Your task to perform on an android device: delete location history Image 0: 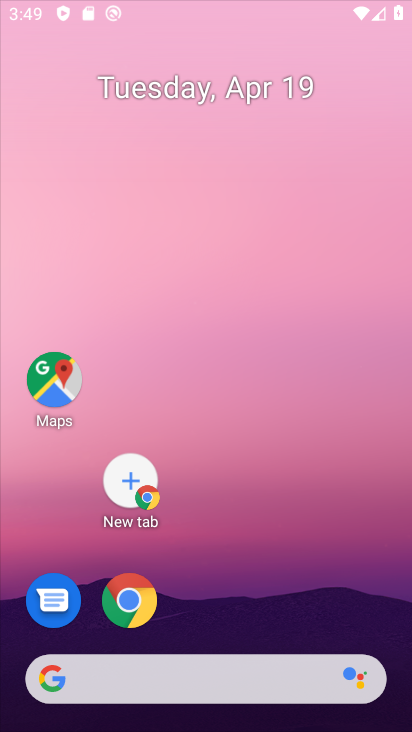
Step 0: click (248, 594)
Your task to perform on an android device: delete location history Image 1: 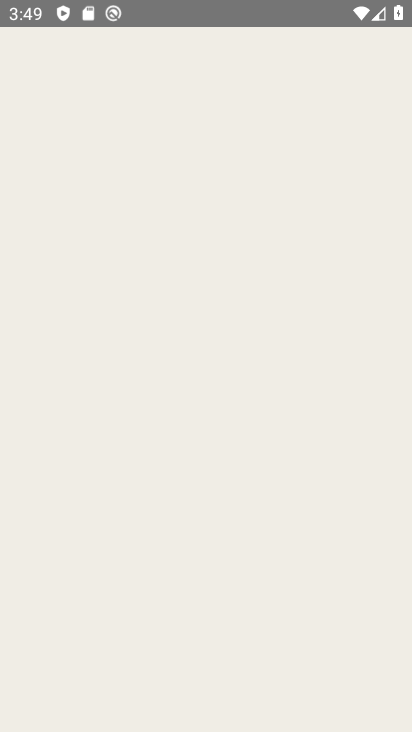
Step 1: drag from (293, 15) to (297, 436)
Your task to perform on an android device: delete location history Image 2: 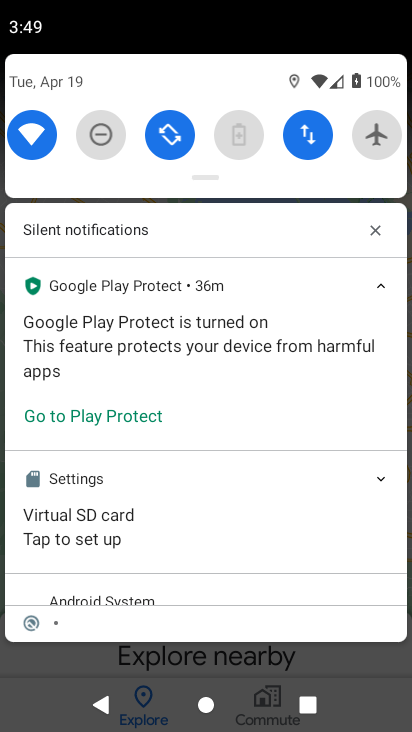
Step 2: press home button
Your task to perform on an android device: delete location history Image 3: 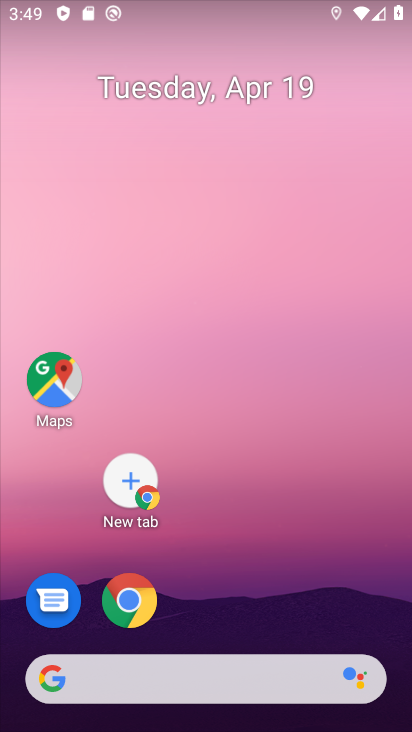
Step 3: click (49, 384)
Your task to perform on an android device: delete location history Image 4: 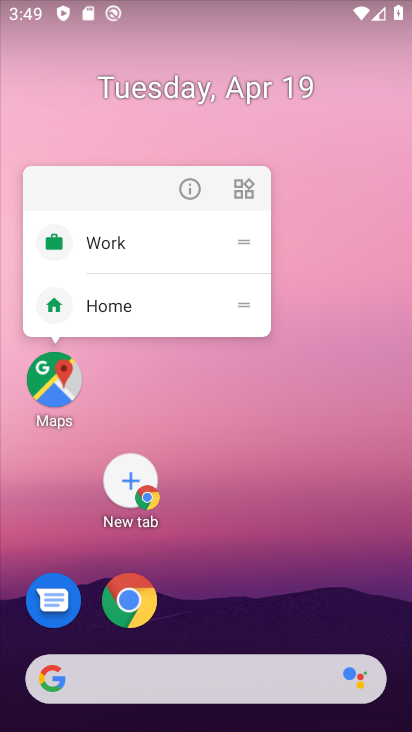
Step 4: click (47, 383)
Your task to perform on an android device: delete location history Image 5: 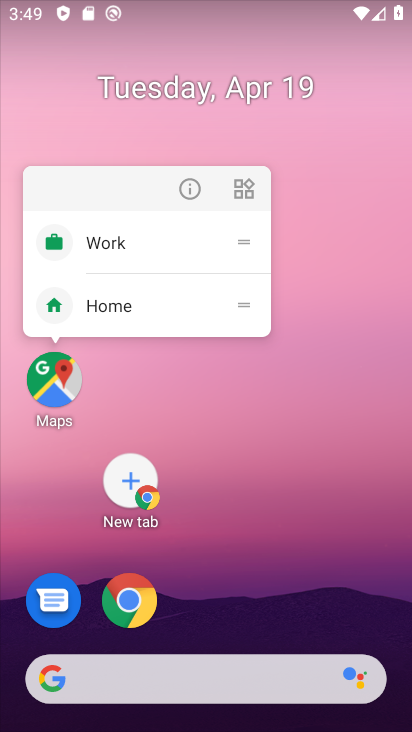
Step 5: click (47, 383)
Your task to perform on an android device: delete location history Image 6: 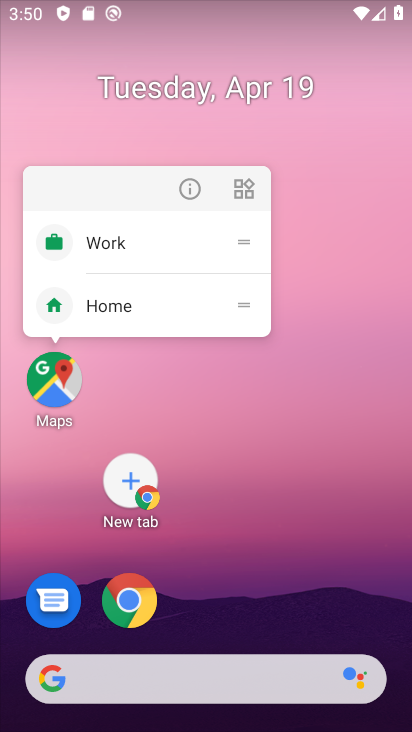
Step 6: click (110, 311)
Your task to perform on an android device: delete location history Image 7: 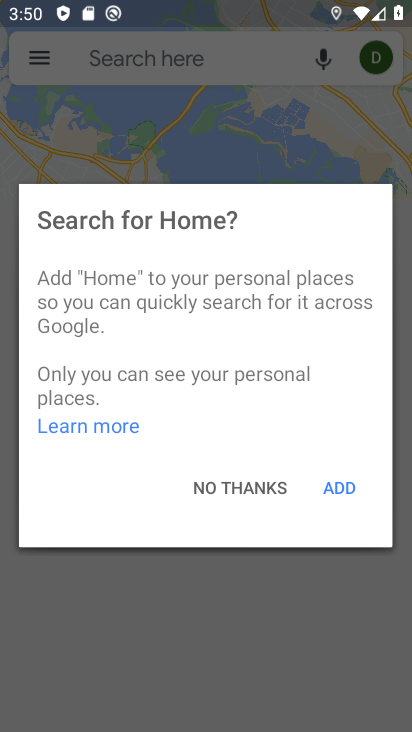
Step 7: click (43, 61)
Your task to perform on an android device: delete location history Image 8: 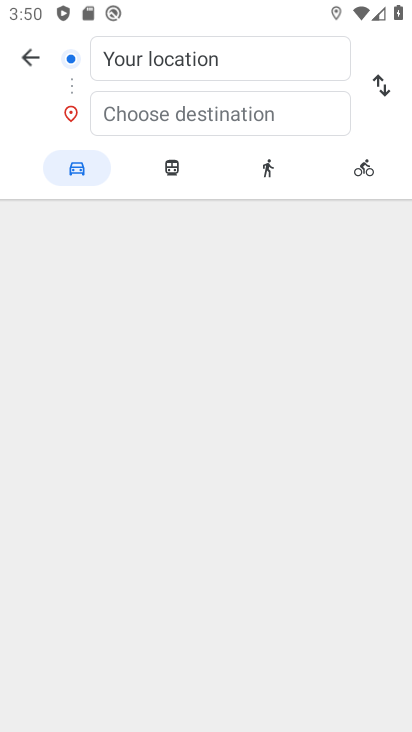
Step 8: click (43, 61)
Your task to perform on an android device: delete location history Image 9: 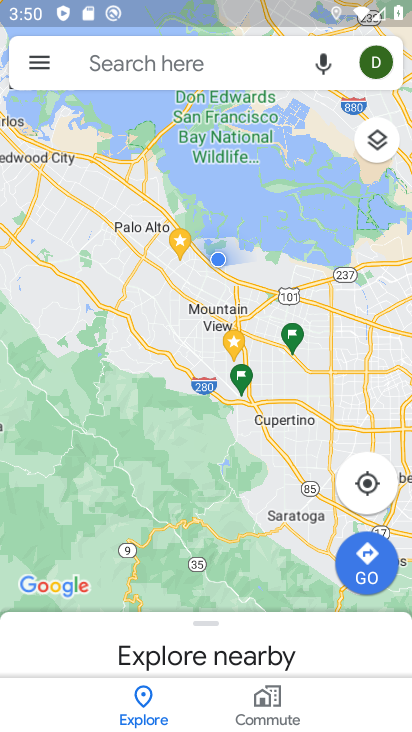
Step 9: click (43, 61)
Your task to perform on an android device: delete location history Image 10: 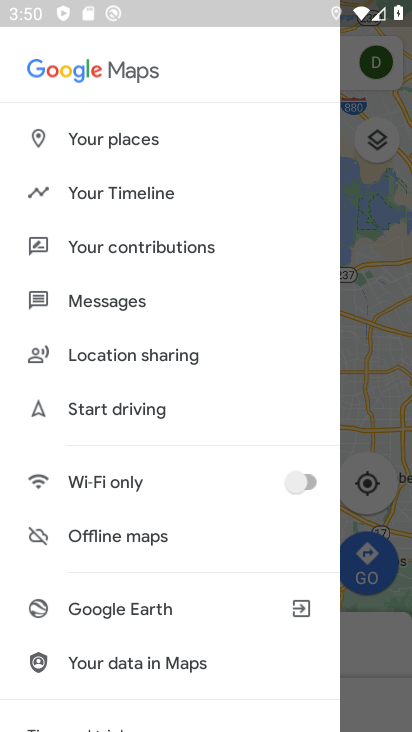
Step 10: click (123, 194)
Your task to perform on an android device: delete location history Image 11: 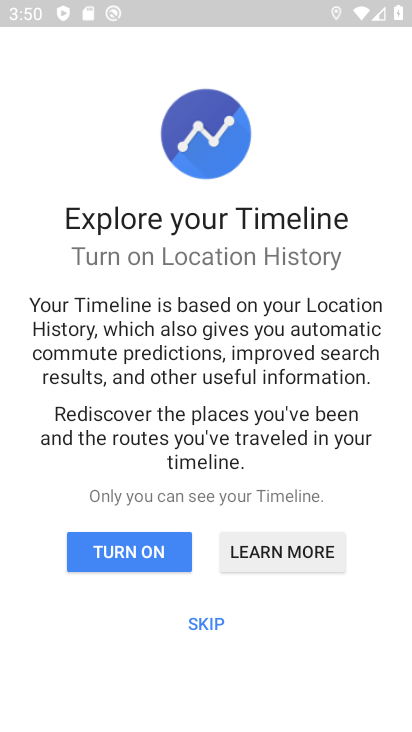
Step 11: click (177, 549)
Your task to perform on an android device: delete location history Image 12: 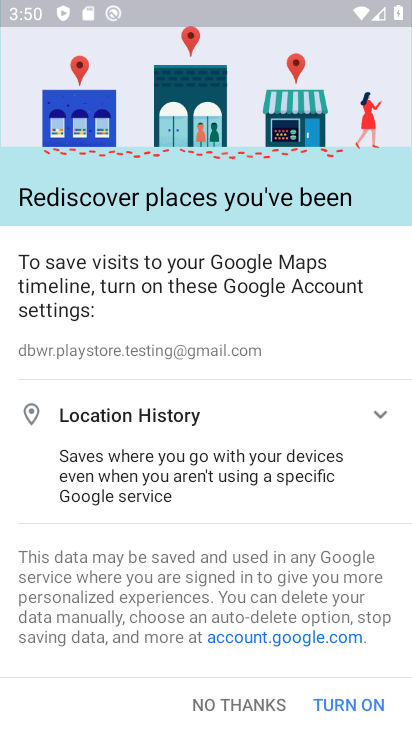
Step 12: click (332, 701)
Your task to perform on an android device: delete location history Image 13: 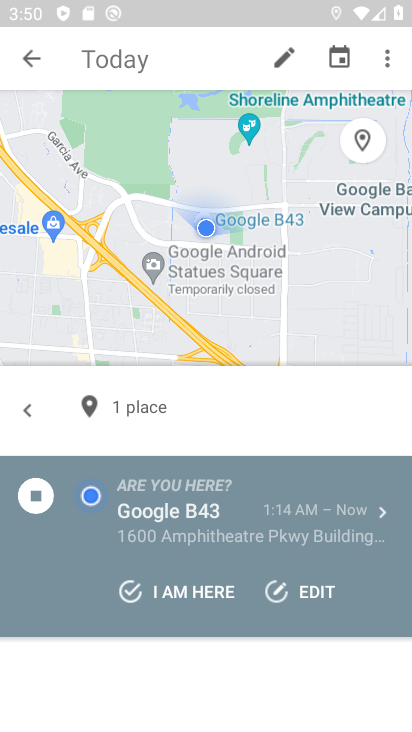
Step 13: click (392, 54)
Your task to perform on an android device: delete location history Image 14: 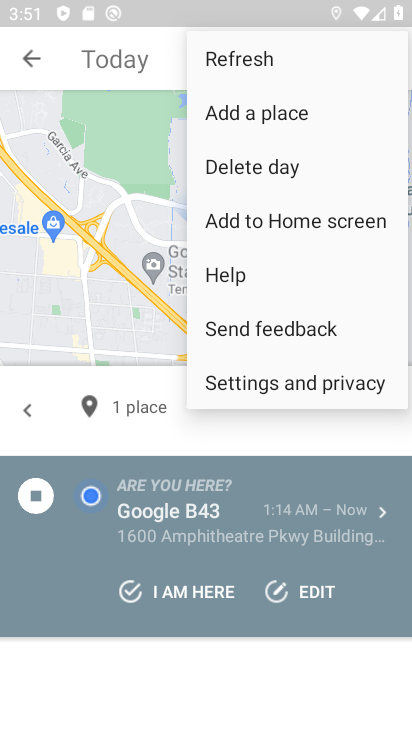
Step 14: click (287, 390)
Your task to perform on an android device: delete location history Image 15: 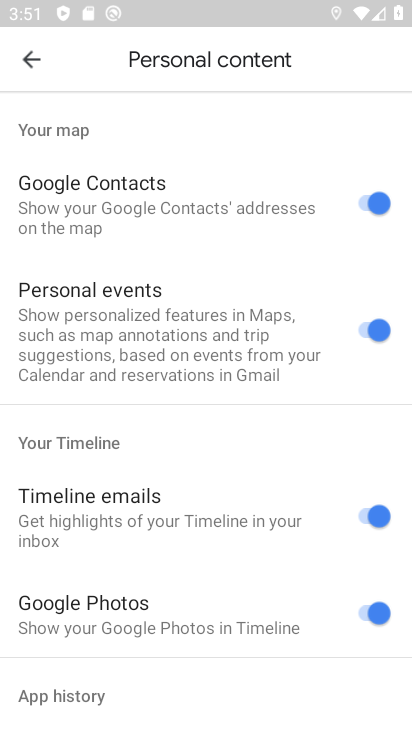
Step 15: drag from (166, 597) to (141, 75)
Your task to perform on an android device: delete location history Image 16: 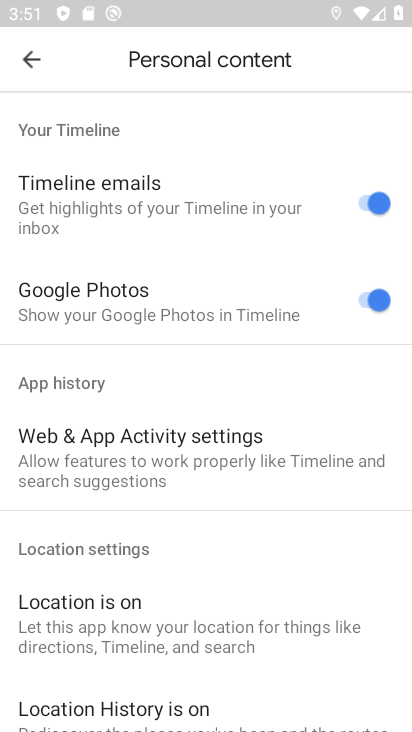
Step 16: drag from (143, 562) to (155, 3)
Your task to perform on an android device: delete location history Image 17: 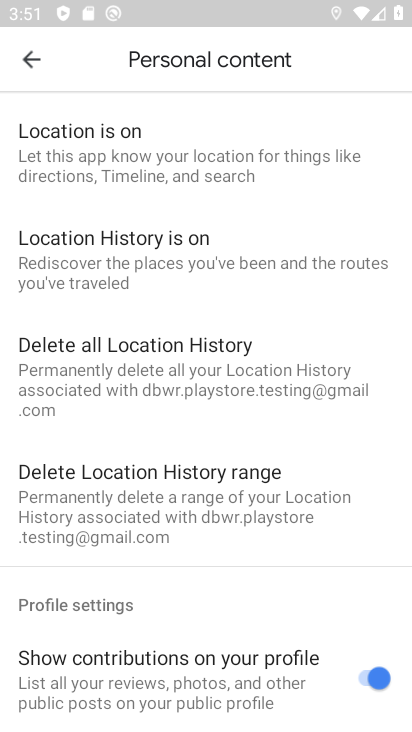
Step 17: click (172, 381)
Your task to perform on an android device: delete location history Image 18: 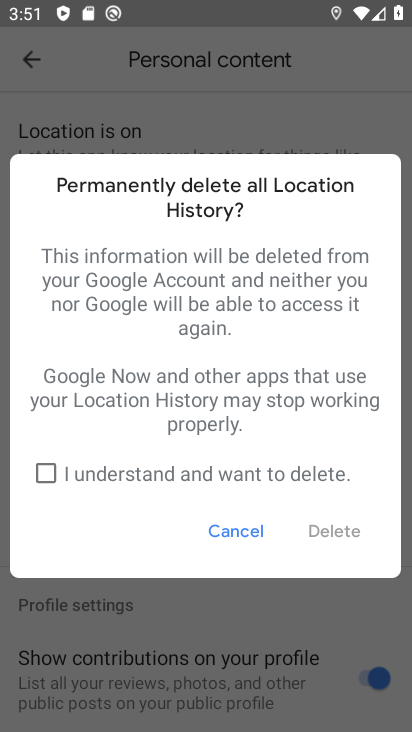
Step 18: click (48, 471)
Your task to perform on an android device: delete location history Image 19: 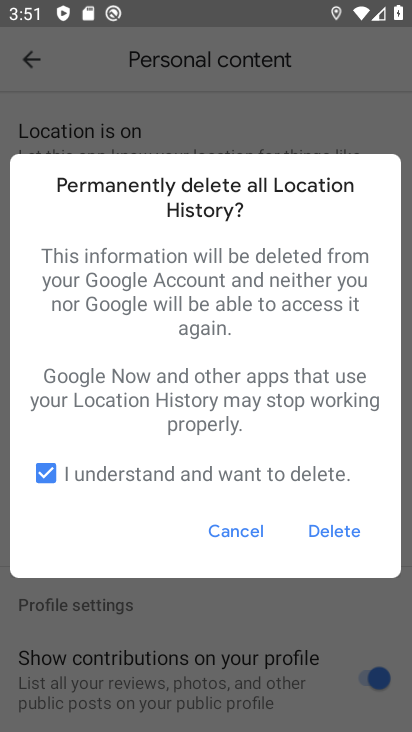
Step 19: click (363, 536)
Your task to perform on an android device: delete location history Image 20: 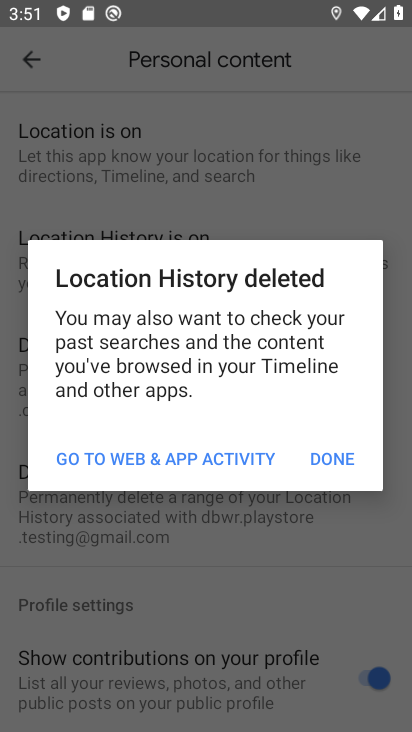
Step 20: click (363, 536)
Your task to perform on an android device: delete location history Image 21: 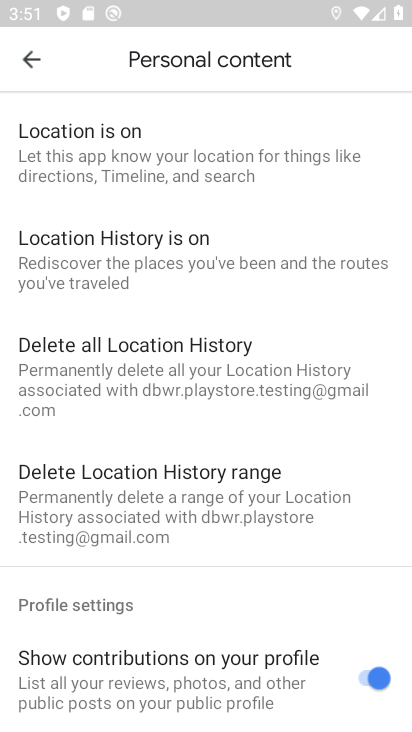
Step 21: task complete